Your task to perform on an android device: Open Maps and search for coffee Image 0: 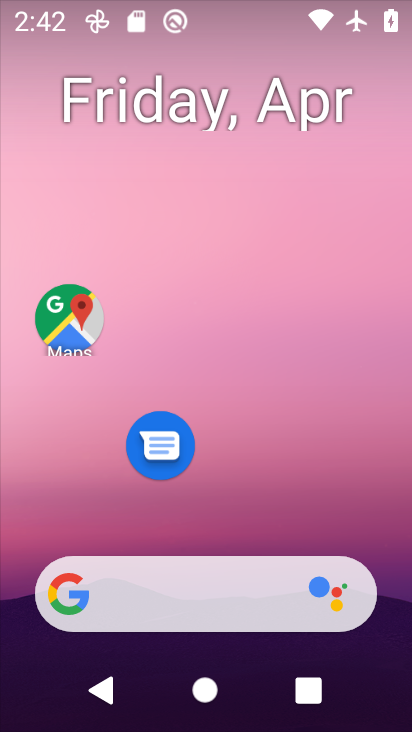
Step 0: drag from (227, 494) to (275, 110)
Your task to perform on an android device: Open Maps and search for coffee Image 1: 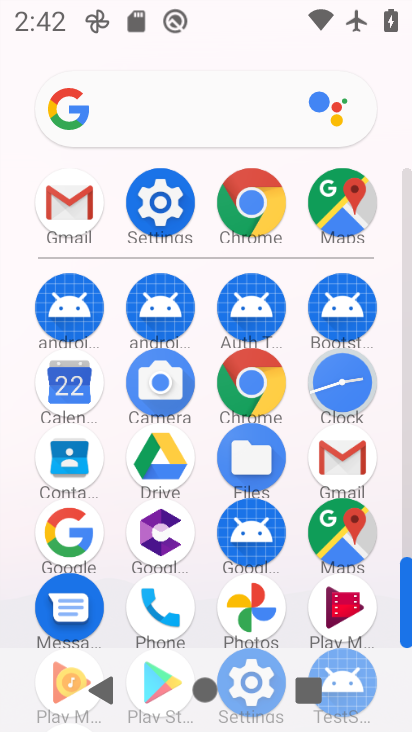
Step 1: click (325, 197)
Your task to perform on an android device: Open Maps and search for coffee Image 2: 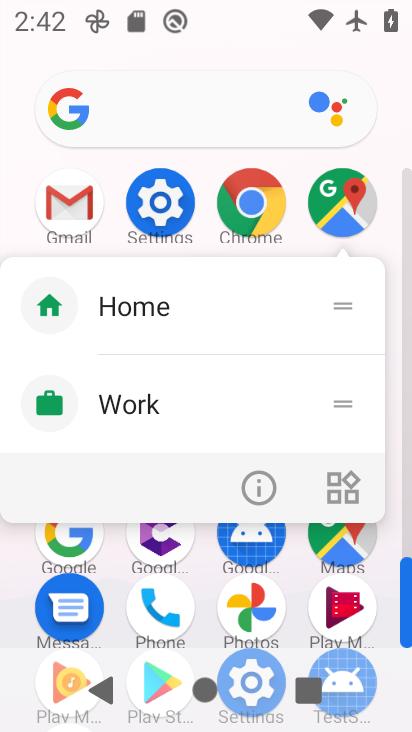
Step 2: click (315, 207)
Your task to perform on an android device: Open Maps and search for coffee Image 3: 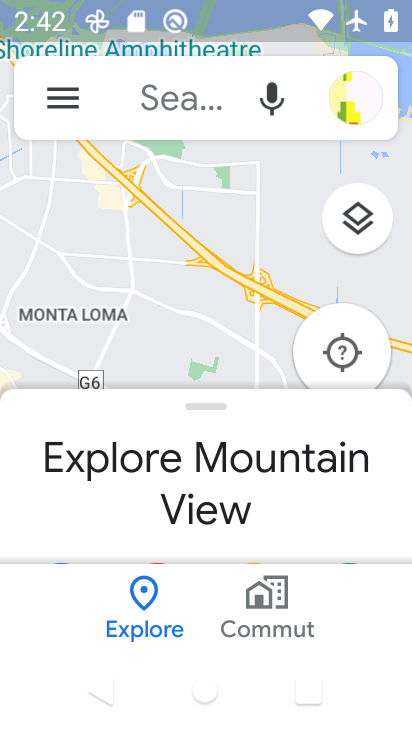
Step 3: click (186, 111)
Your task to perform on an android device: Open Maps and search for coffee Image 4: 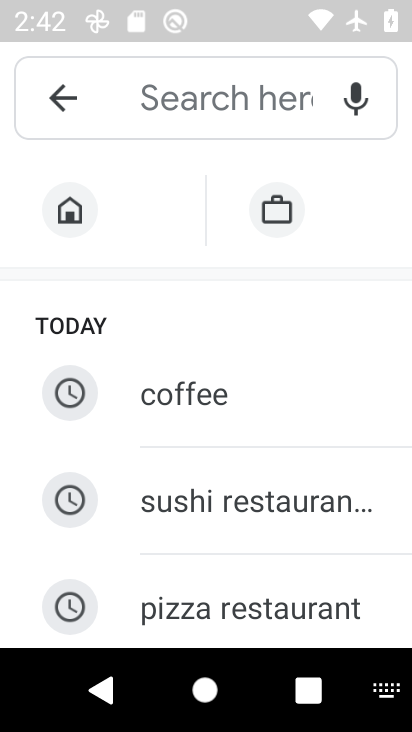
Step 4: type "coffee"
Your task to perform on an android device: Open Maps and search for coffee Image 5: 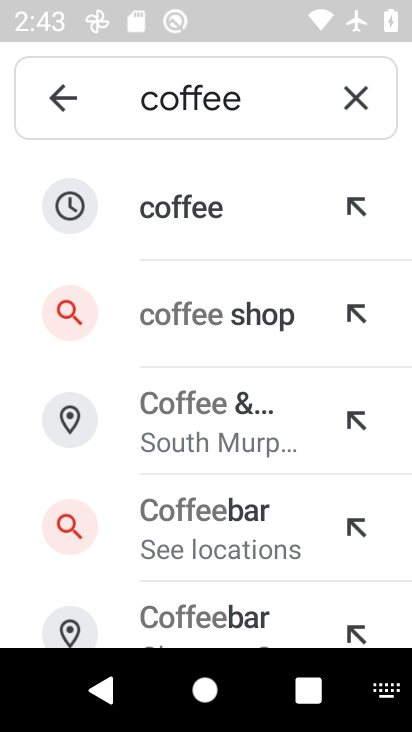
Step 5: click (175, 207)
Your task to perform on an android device: Open Maps and search for coffee Image 6: 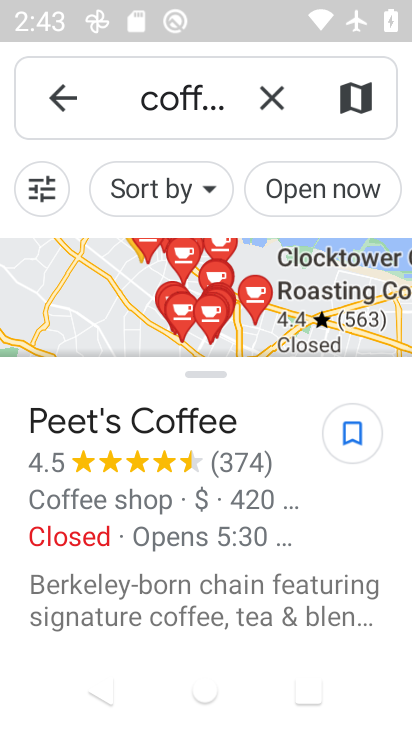
Step 6: task complete